Your task to perform on an android device: turn off smart reply in the gmail app Image 0: 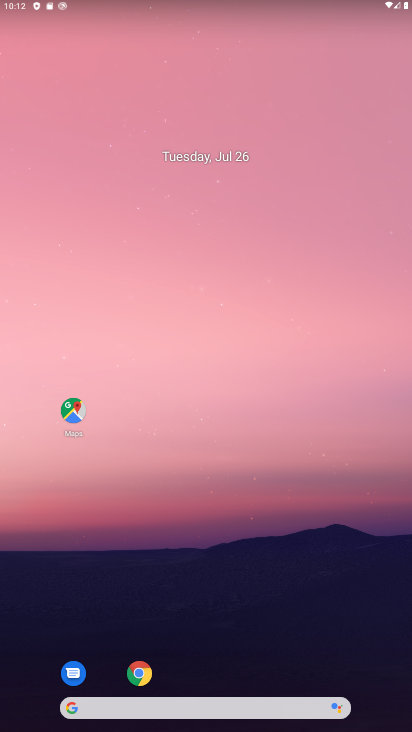
Step 0: drag from (243, 680) to (183, 107)
Your task to perform on an android device: turn off smart reply in the gmail app Image 1: 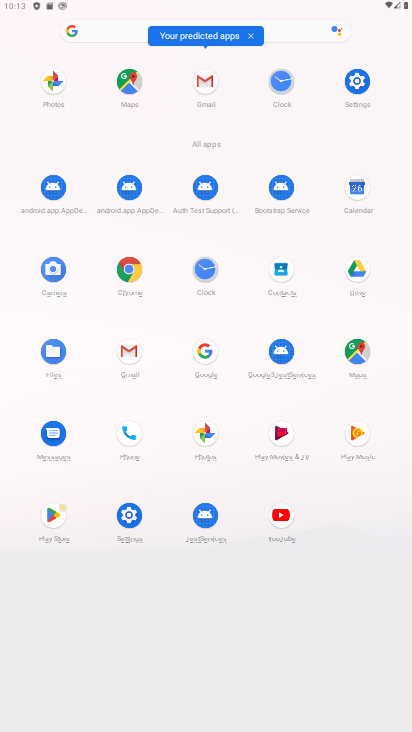
Step 1: click (202, 87)
Your task to perform on an android device: turn off smart reply in the gmail app Image 2: 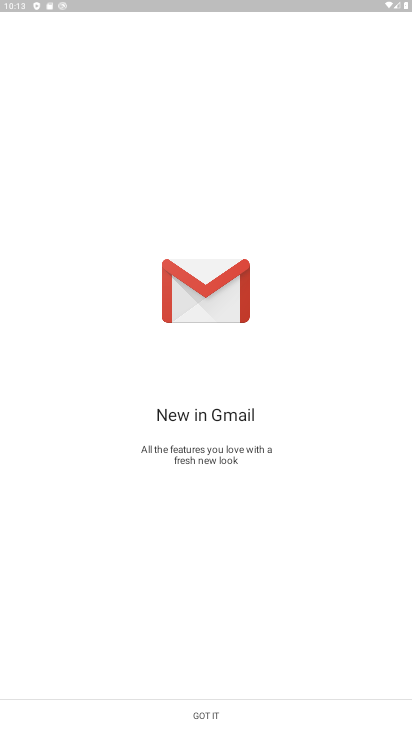
Step 2: click (218, 709)
Your task to perform on an android device: turn off smart reply in the gmail app Image 3: 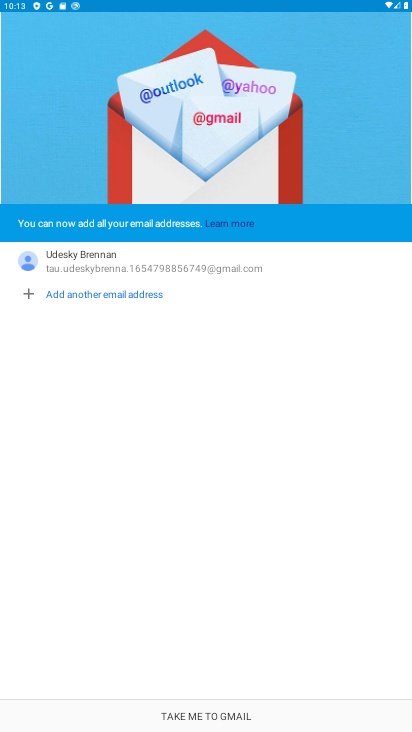
Step 3: click (219, 717)
Your task to perform on an android device: turn off smart reply in the gmail app Image 4: 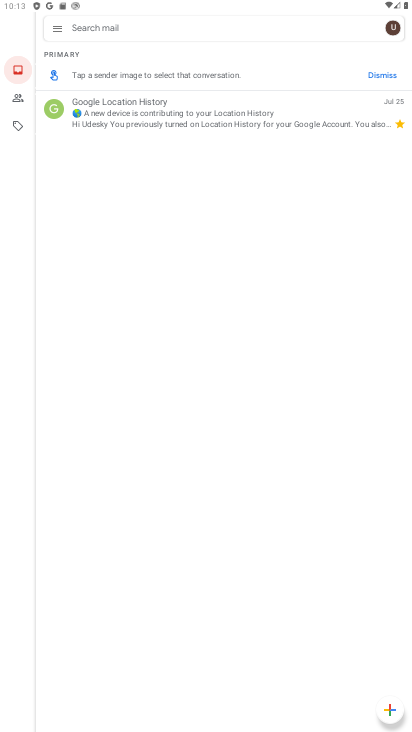
Step 4: click (55, 25)
Your task to perform on an android device: turn off smart reply in the gmail app Image 5: 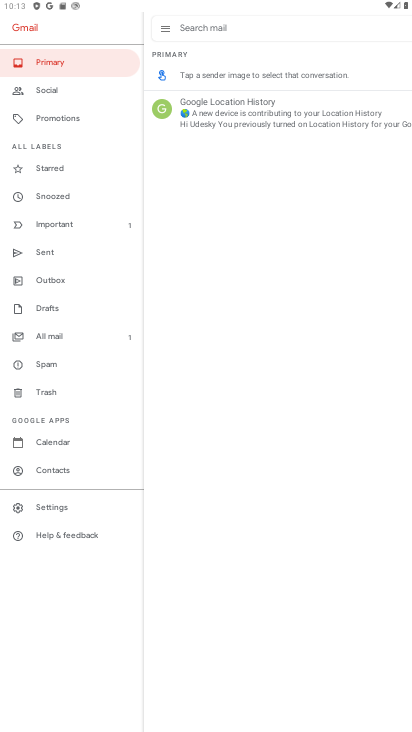
Step 5: click (72, 506)
Your task to perform on an android device: turn off smart reply in the gmail app Image 6: 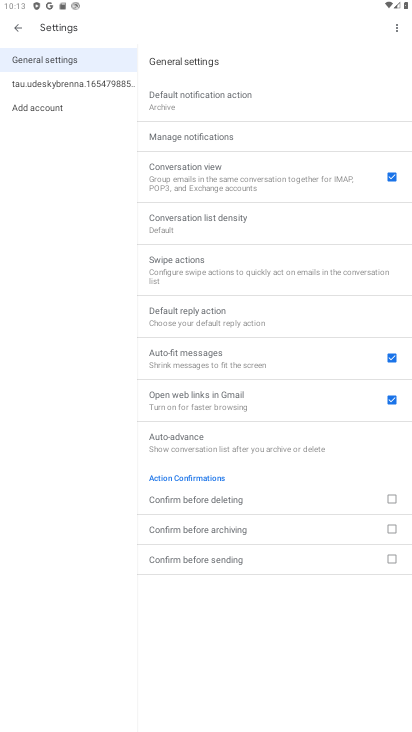
Step 6: click (73, 83)
Your task to perform on an android device: turn off smart reply in the gmail app Image 7: 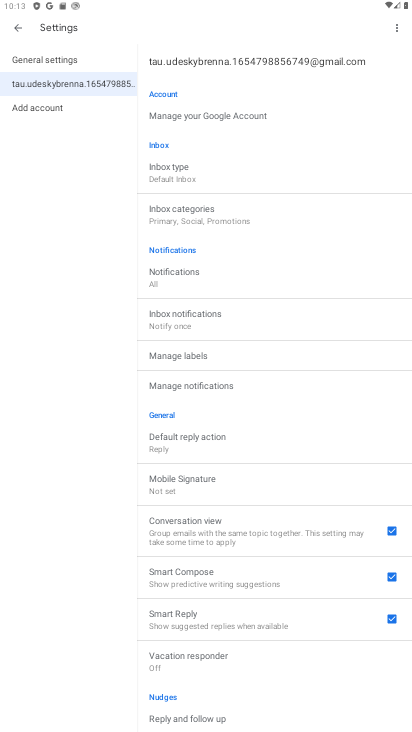
Step 7: click (395, 627)
Your task to perform on an android device: turn off smart reply in the gmail app Image 8: 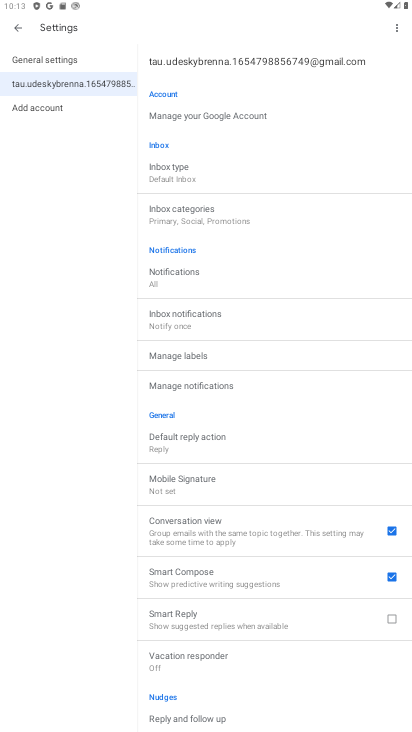
Step 8: task complete